Your task to perform on an android device: change the clock display to digital Image 0: 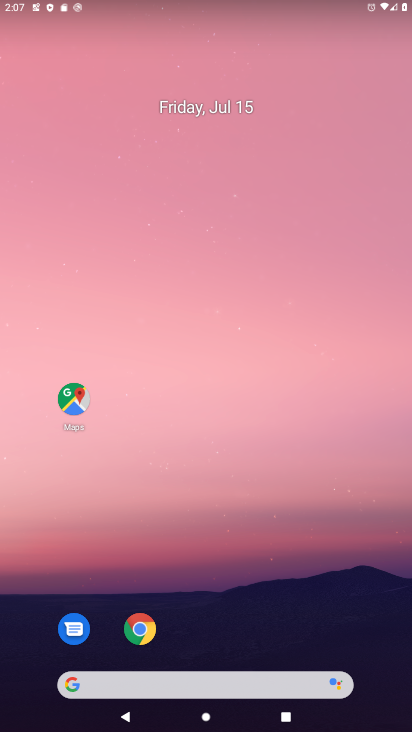
Step 0: drag from (306, 591) to (247, 27)
Your task to perform on an android device: change the clock display to digital Image 1: 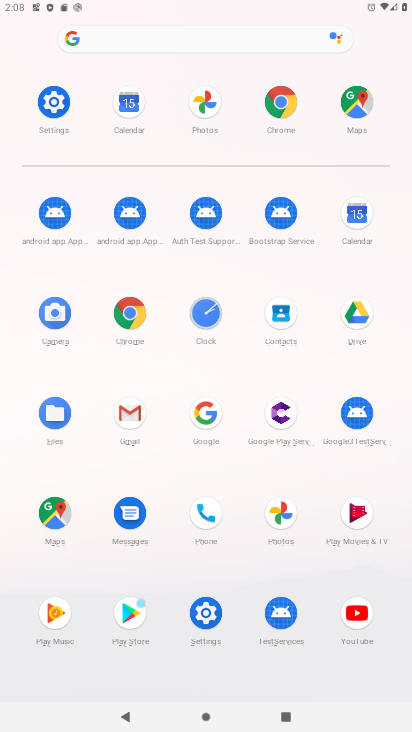
Step 1: click (202, 323)
Your task to perform on an android device: change the clock display to digital Image 2: 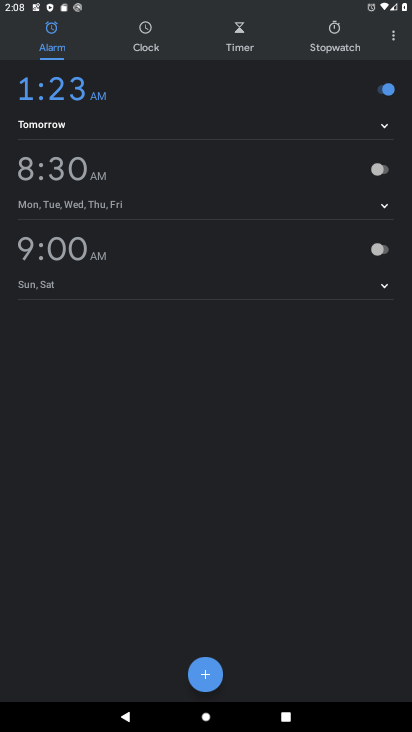
Step 2: click (389, 39)
Your task to perform on an android device: change the clock display to digital Image 3: 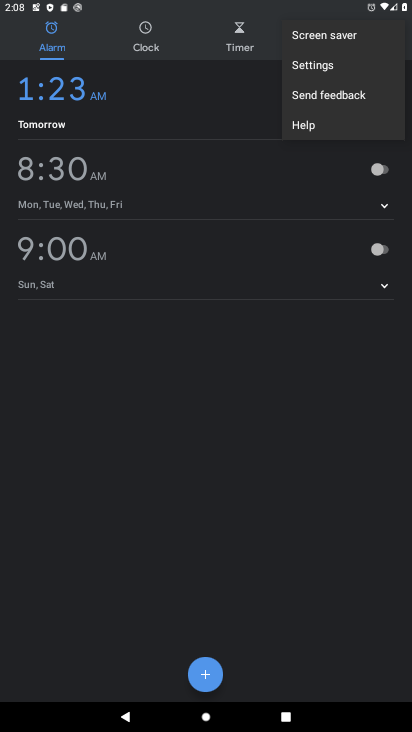
Step 3: click (323, 65)
Your task to perform on an android device: change the clock display to digital Image 4: 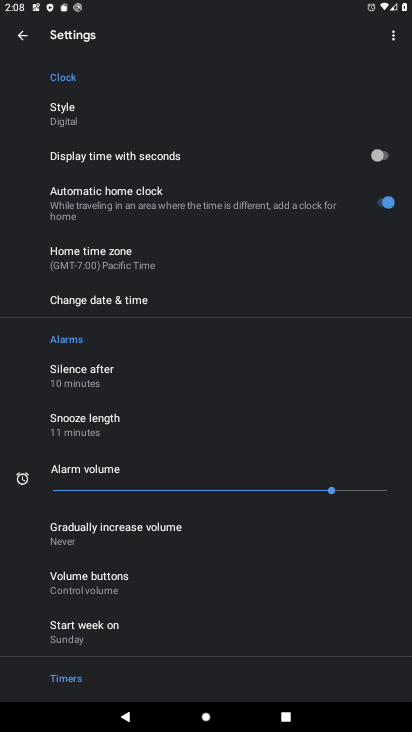
Step 4: task complete